Your task to perform on an android device: turn on translation in the chrome app Image 0: 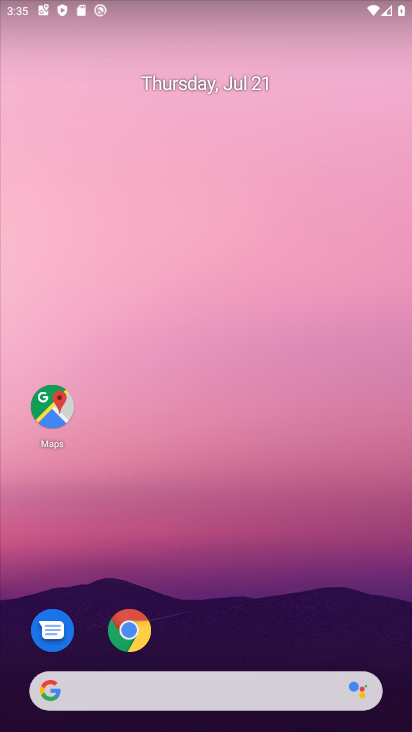
Step 0: drag from (230, 656) to (175, 34)
Your task to perform on an android device: turn on translation in the chrome app Image 1: 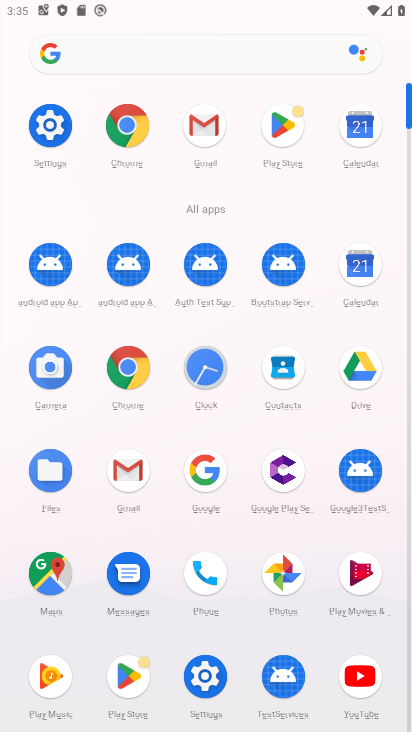
Step 1: click (130, 372)
Your task to perform on an android device: turn on translation in the chrome app Image 2: 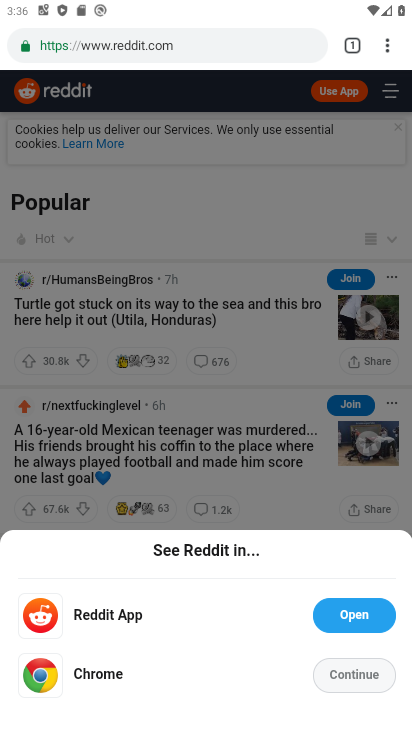
Step 2: click (368, 669)
Your task to perform on an android device: turn on translation in the chrome app Image 3: 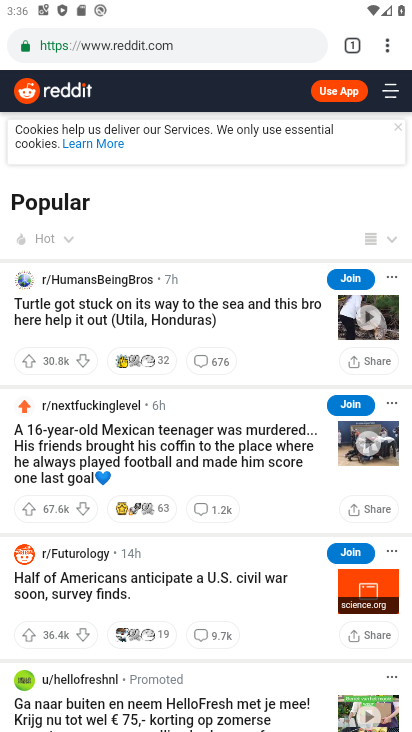
Step 3: click (379, 43)
Your task to perform on an android device: turn on translation in the chrome app Image 4: 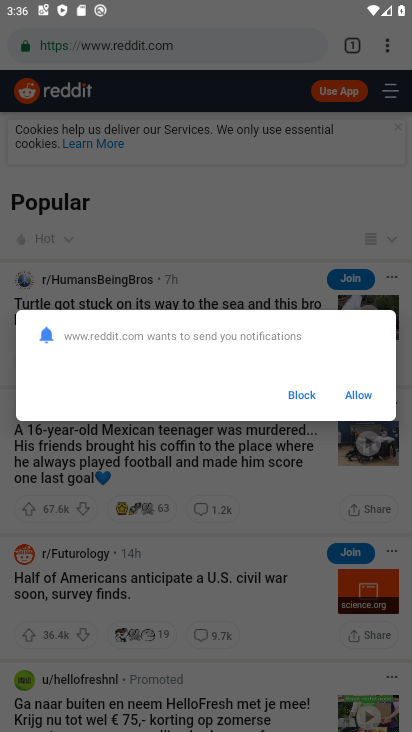
Step 4: click (360, 405)
Your task to perform on an android device: turn on translation in the chrome app Image 5: 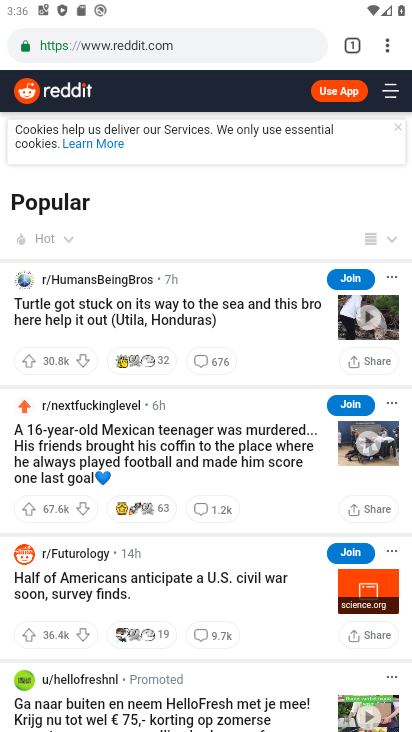
Step 5: click (382, 41)
Your task to perform on an android device: turn on translation in the chrome app Image 6: 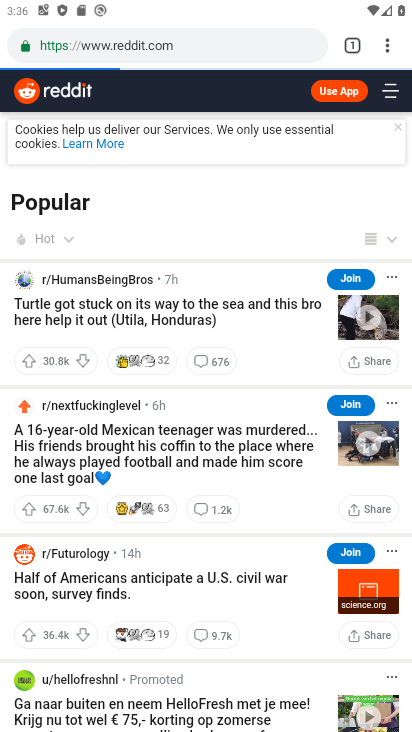
Step 6: click (387, 44)
Your task to perform on an android device: turn on translation in the chrome app Image 7: 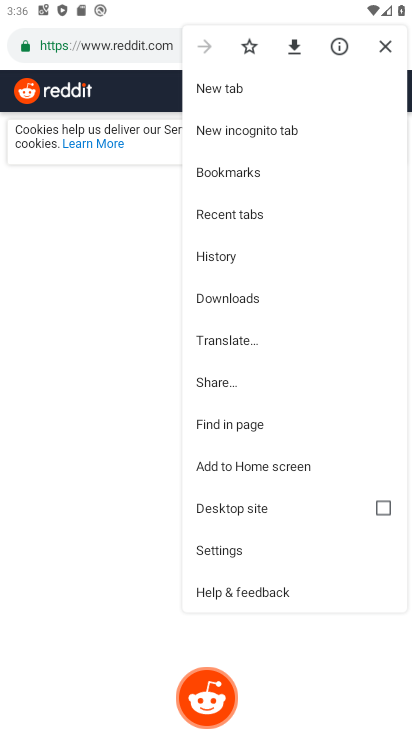
Step 7: click (236, 551)
Your task to perform on an android device: turn on translation in the chrome app Image 8: 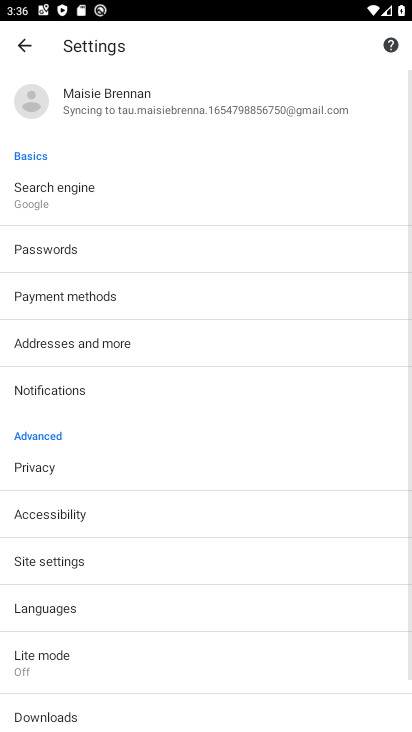
Step 8: click (70, 606)
Your task to perform on an android device: turn on translation in the chrome app Image 9: 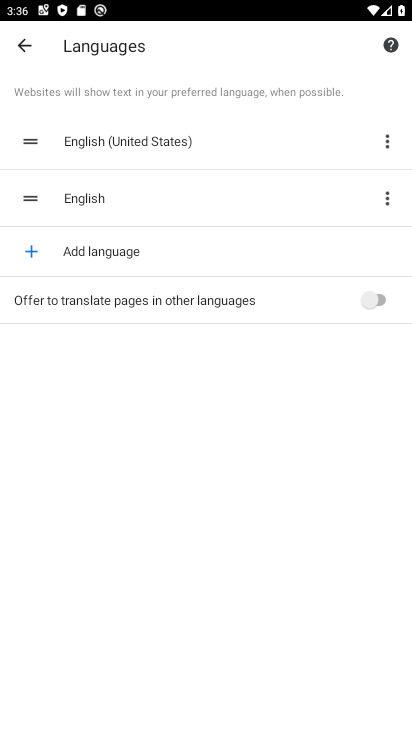
Step 9: click (373, 297)
Your task to perform on an android device: turn on translation in the chrome app Image 10: 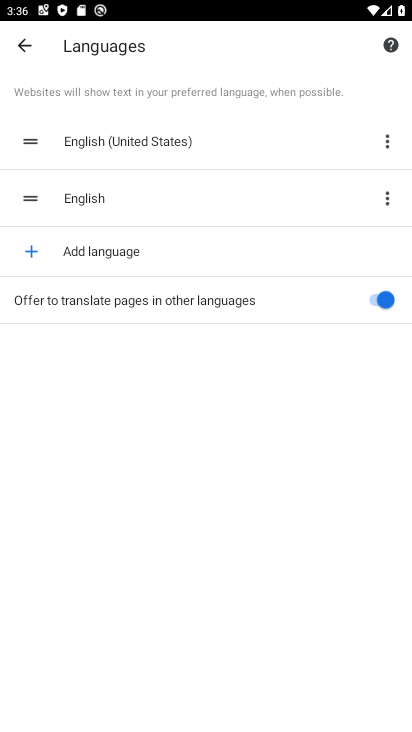
Step 10: task complete